Your task to perform on an android device: Go to eBay Image 0: 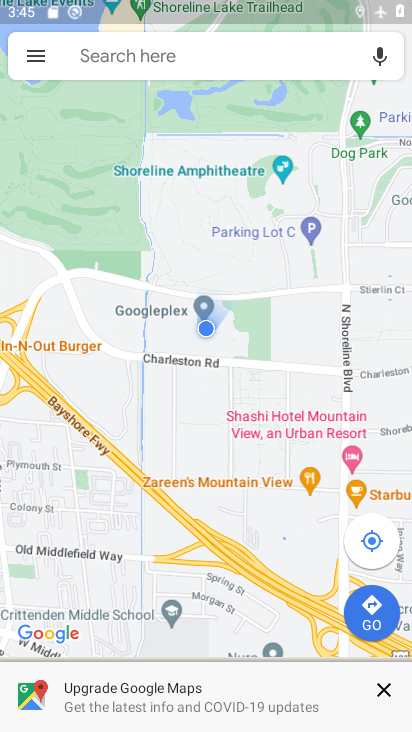
Step 0: press home button
Your task to perform on an android device: Go to eBay Image 1: 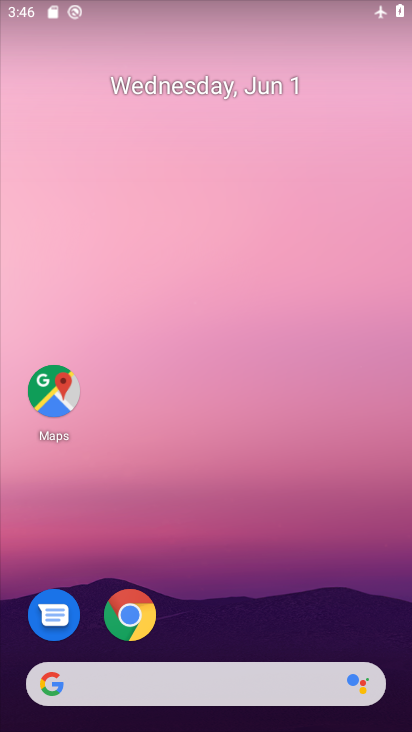
Step 1: click (136, 618)
Your task to perform on an android device: Go to eBay Image 2: 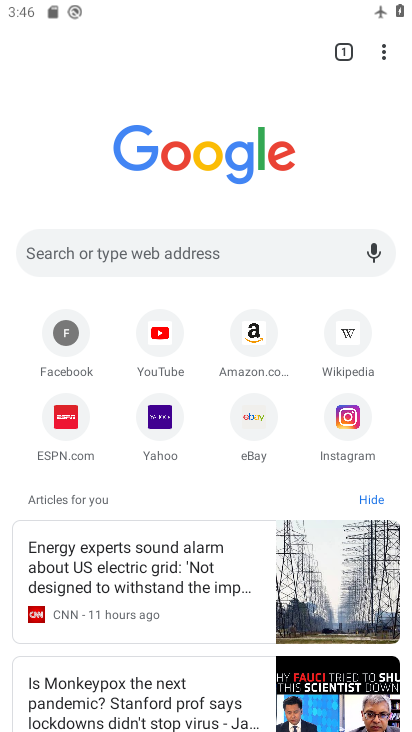
Step 2: click (189, 244)
Your task to perform on an android device: Go to eBay Image 3: 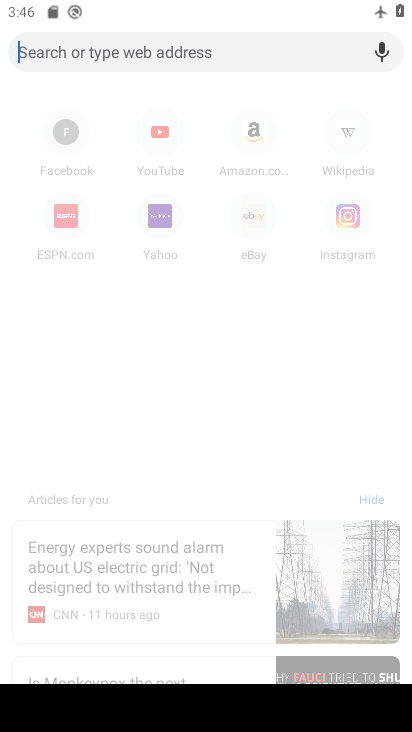
Step 3: type "ebay"
Your task to perform on an android device: Go to eBay Image 4: 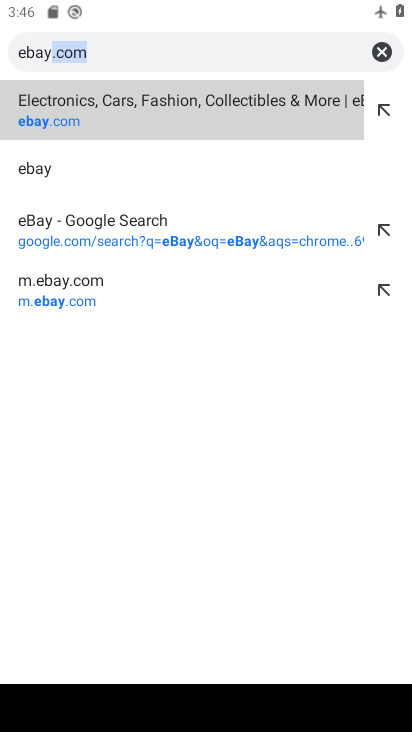
Step 4: click (60, 128)
Your task to perform on an android device: Go to eBay Image 5: 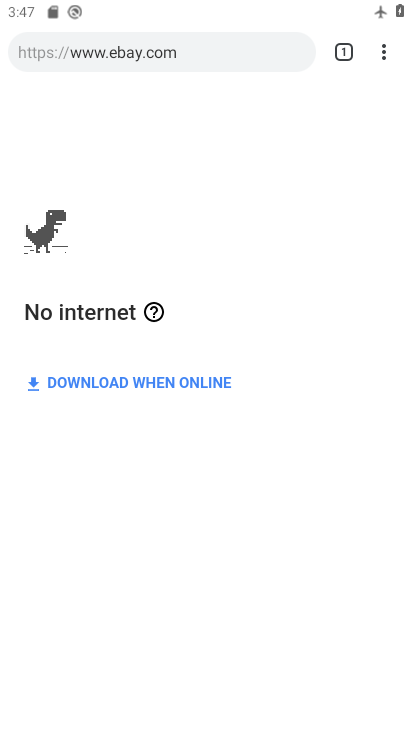
Step 5: task complete